Your task to perform on an android device: check android version Image 0: 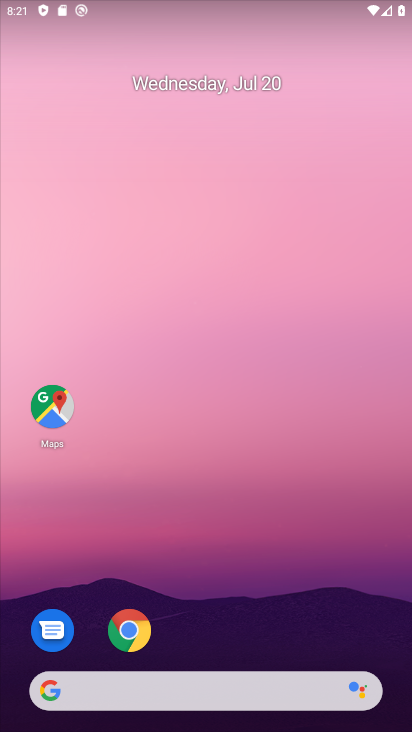
Step 0: drag from (210, 201) to (210, 9)
Your task to perform on an android device: check android version Image 1: 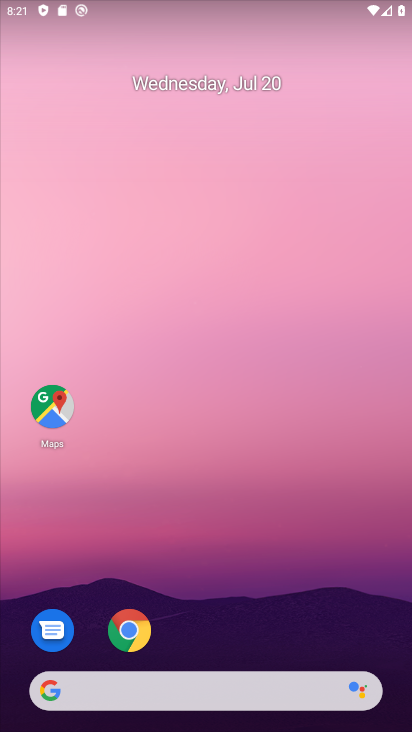
Step 1: drag from (302, 451) to (303, 1)
Your task to perform on an android device: check android version Image 2: 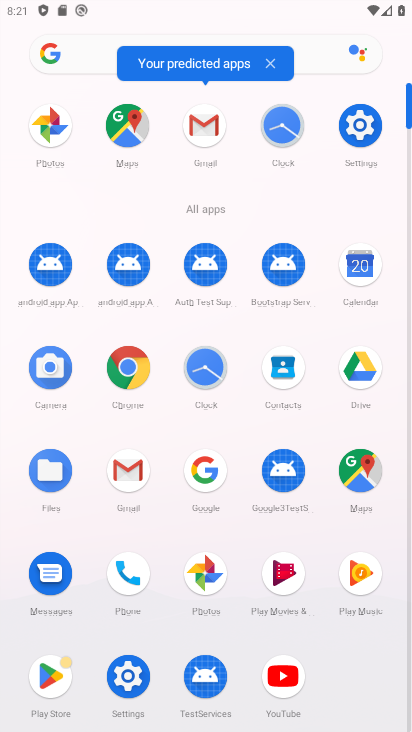
Step 2: click (360, 150)
Your task to perform on an android device: check android version Image 3: 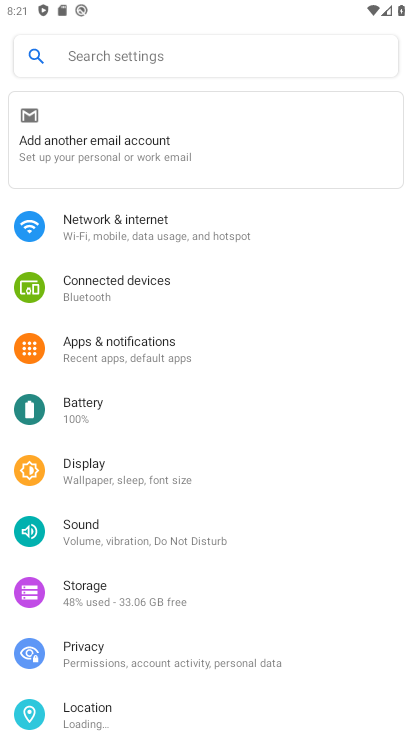
Step 3: drag from (201, 481) to (198, 138)
Your task to perform on an android device: check android version Image 4: 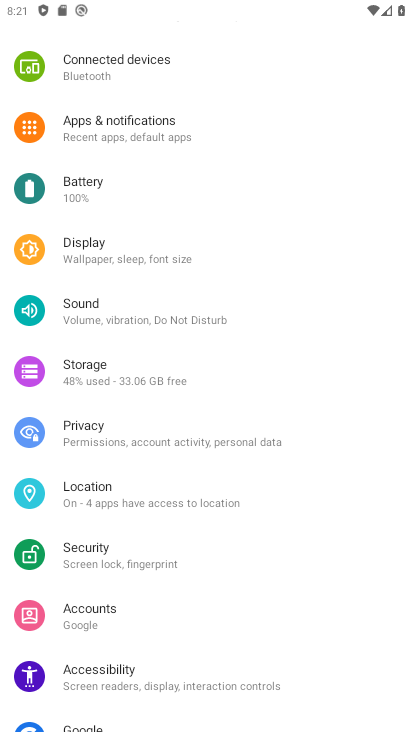
Step 4: drag from (125, 488) to (119, 233)
Your task to perform on an android device: check android version Image 5: 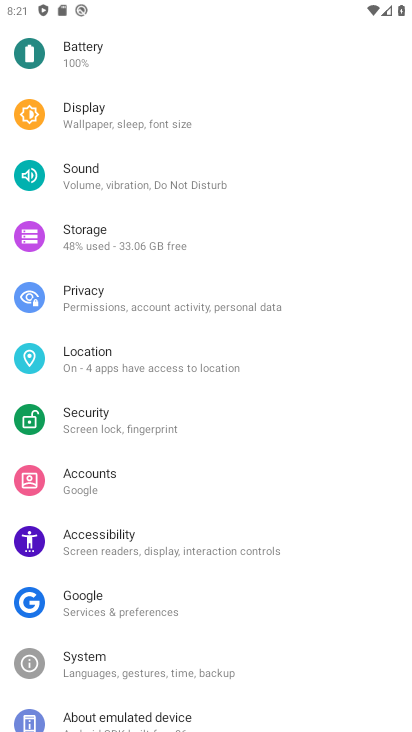
Step 5: click (99, 658)
Your task to perform on an android device: check android version Image 6: 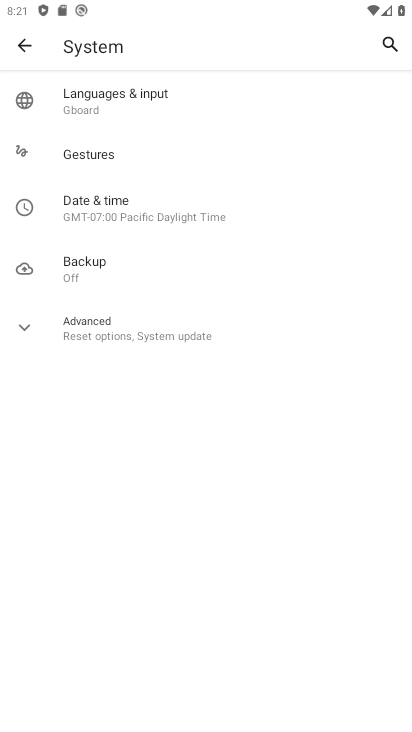
Step 6: task complete